Your task to perform on an android device: Open Maps and search for coffee Image 0: 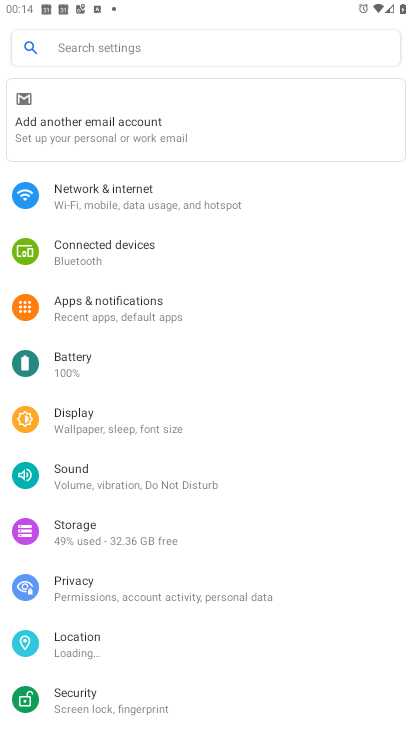
Step 0: press home button
Your task to perform on an android device: Open Maps and search for coffee Image 1: 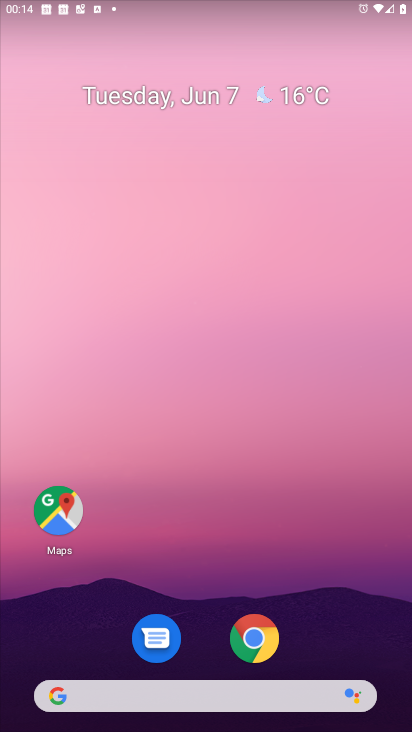
Step 1: drag from (238, 686) to (301, 154)
Your task to perform on an android device: Open Maps and search for coffee Image 2: 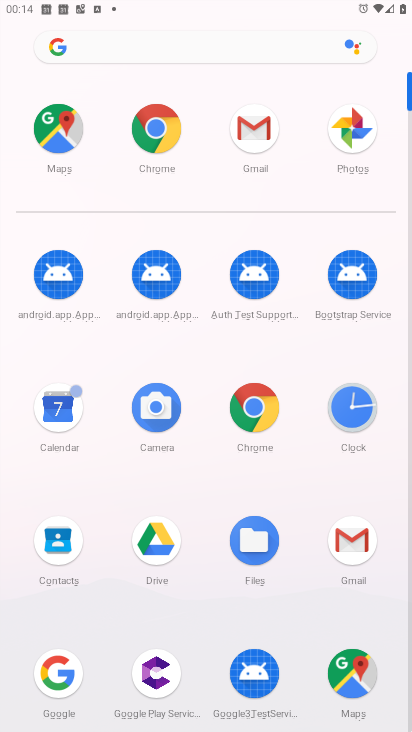
Step 2: click (50, 135)
Your task to perform on an android device: Open Maps and search for coffee Image 3: 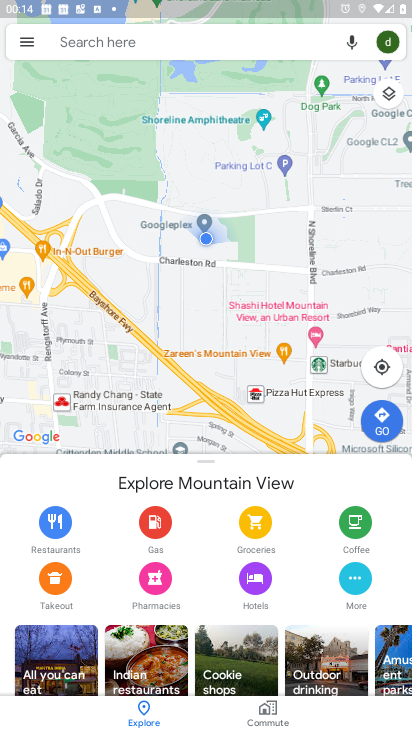
Step 3: click (98, 40)
Your task to perform on an android device: Open Maps and search for coffee Image 4: 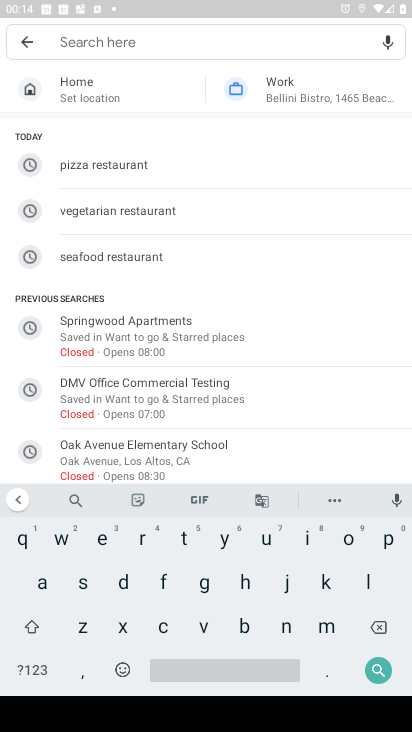
Step 4: click (159, 629)
Your task to perform on an android device: Open Maps and search for coffee Image 5: 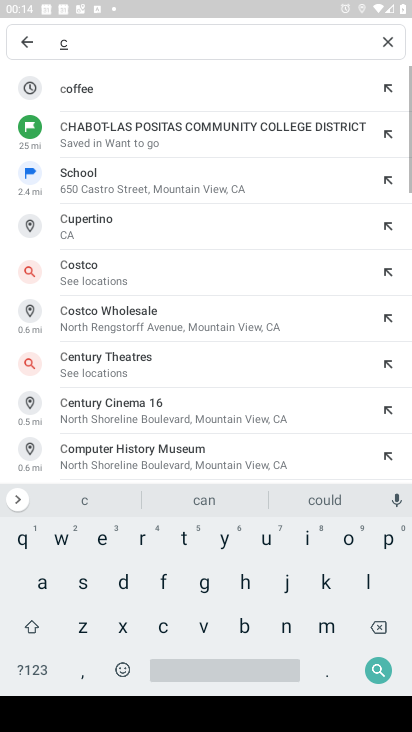
Step 5: click (101, 94)
Your task to perform on an android device: Open Maps and search for coffee Image 6: 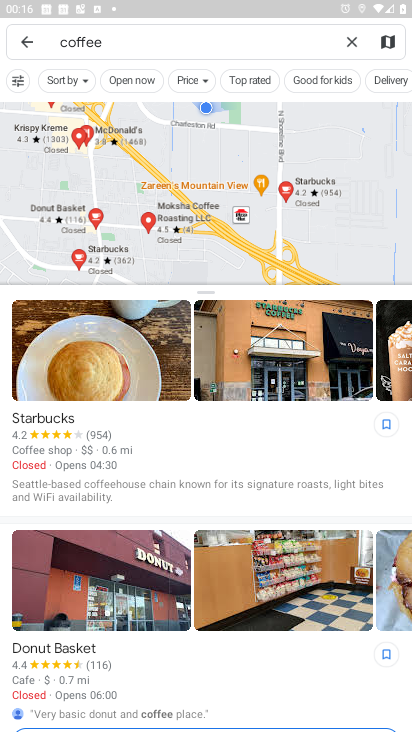
Step 6: task complete